Your task to perform on an android device: see sites visited before in the chrome app Image 0: 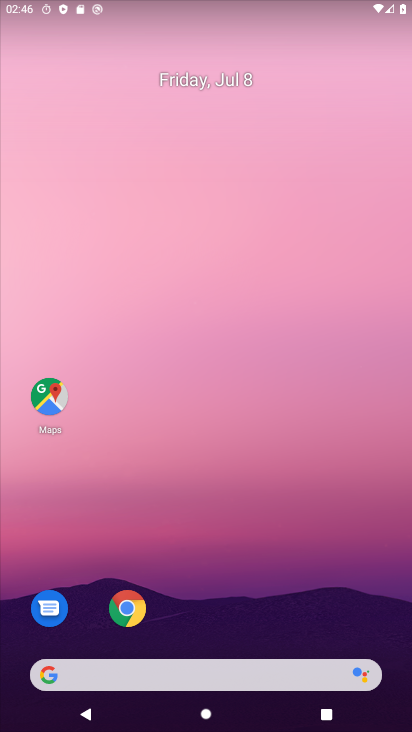
Step 0: drag from (222, 623) to (197, 162)
Your task to perform on an android device: see sites visited before in the chrome app Image 1: 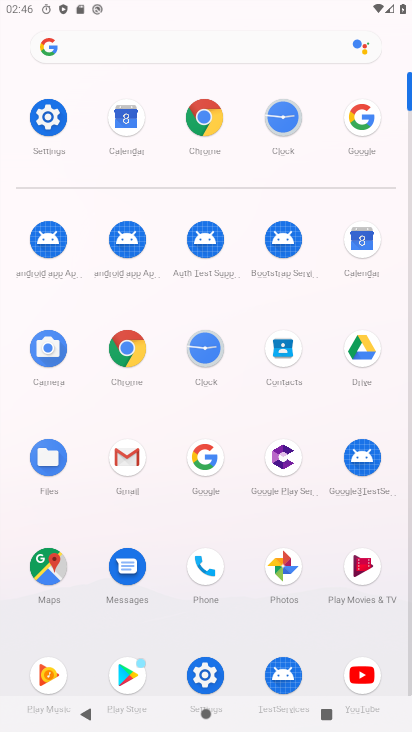
Step 1: click (126, 349)
Your task to perform on an android device: see sites visited before in the chrome app Image 2: 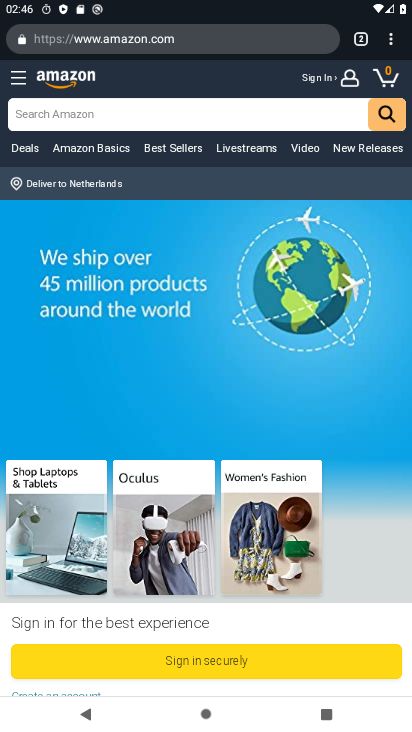
Step 2: click (384, 39)
Your task to perform on an android device: see sites visited before in the chrome app Image 3: 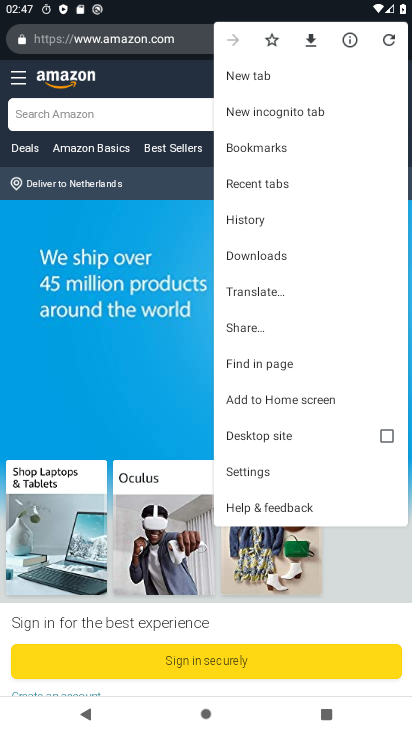
Step 3: click (264, 215)
Your task to perform on an android device: see sites visited before in the chrome app Image 4: 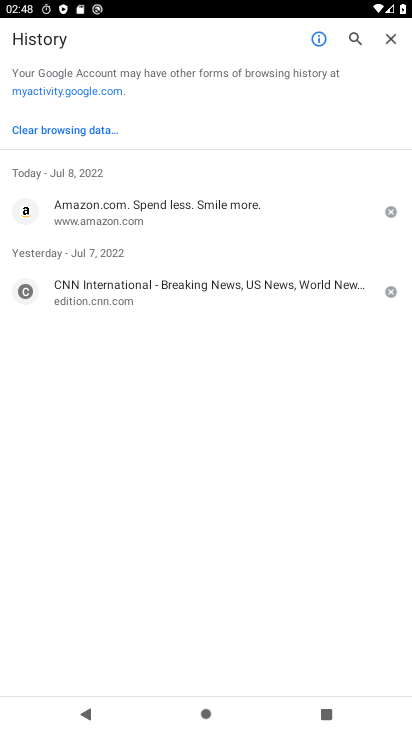
Step 4: task complete